Your task to perform on an android device: check out phone information Image 0: 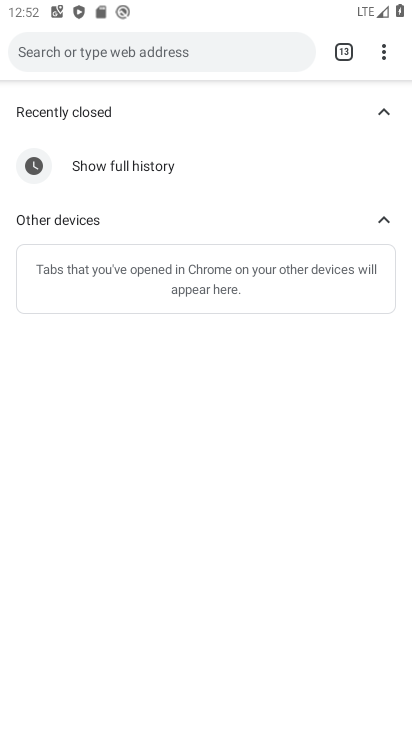
Step 0: press home button
Your task to perform on an android device: check out phone information Image 1: 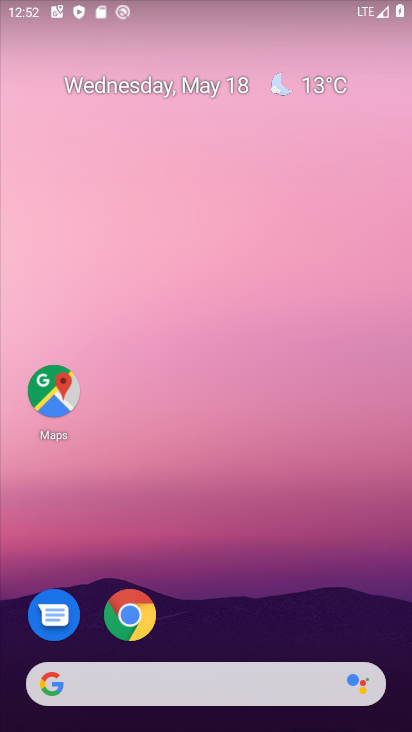
Step 1: drag from (215, 597) to (266, 178)
Your task to perform on an android device: check out phone information Image 2: 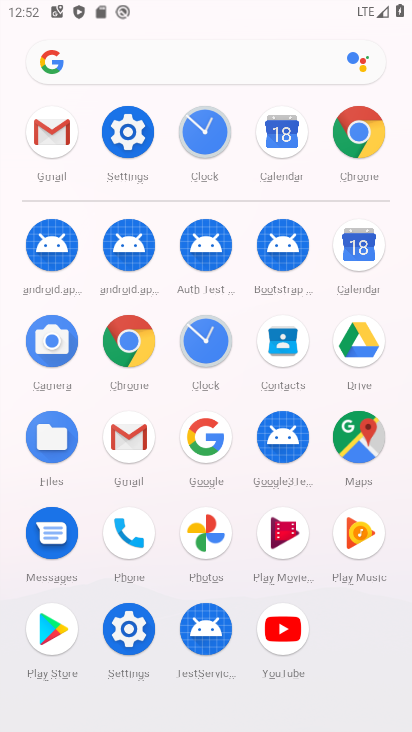
Step 2: click (127, 136)
Your task to perform on an android device: check out phone information Image 3: 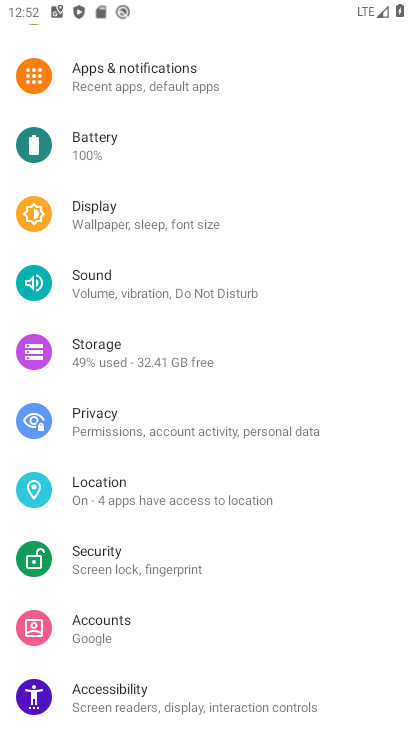
Step 3: drag from (259, 514) to (286, 262)
Your task to perform on an android device: check out phone information Image 4: 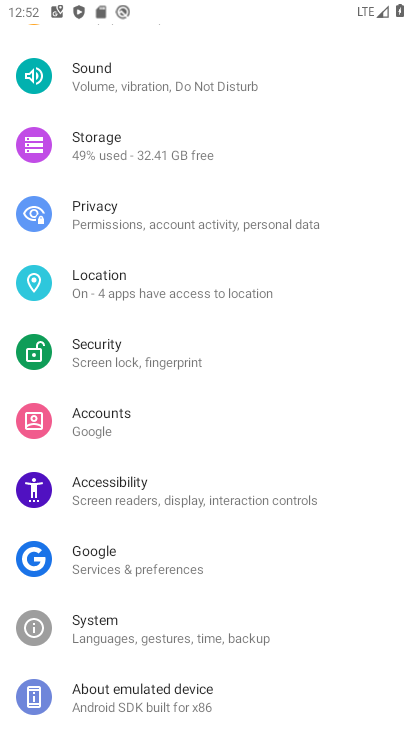
Step 4: drag from (282, 575) to (361, 251)
Your task to perform on an android device: check out phone information Image 5: 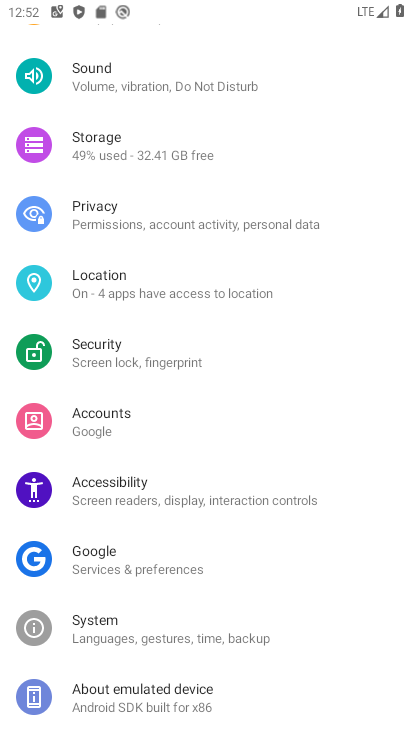
Step 5: click (169, 693)
Your task to perform on an android device: check out phone information Image 6: 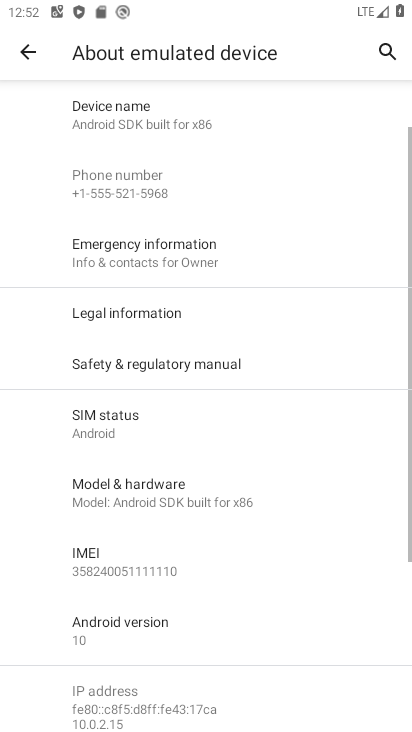
Step 6: task complete